Your task to perform on an android device: delete the emails in spam in the gmail app Image 0: 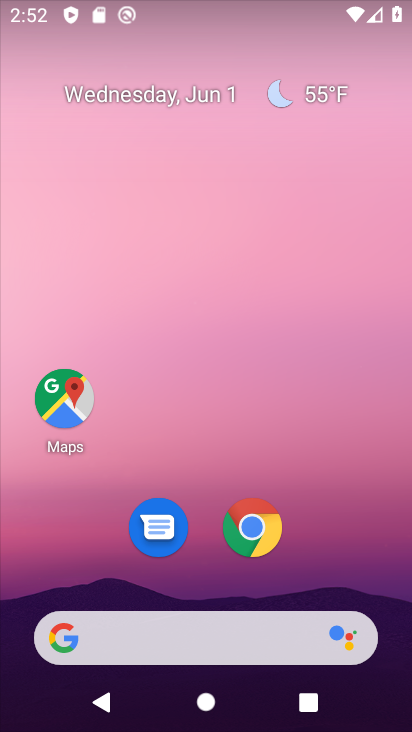
Step 0: drag from (366, 519) to (379, 2)
Your task to perform on an android device: delete the emails in spam in the gmail app Image 1: 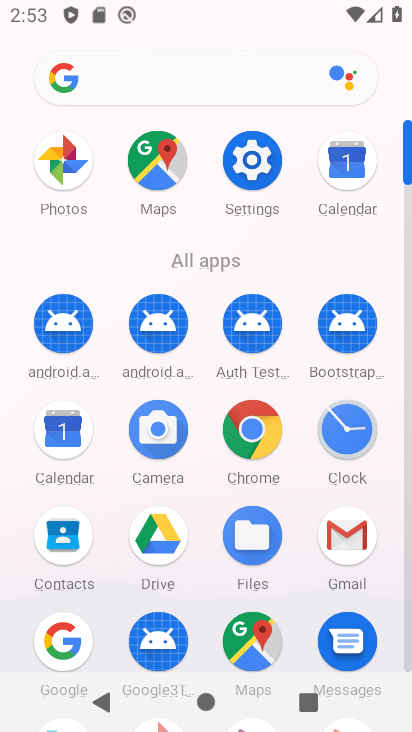
Step 1: click (340, 554)
Your task to perform on an android device: delete the emails in spam in the gmail app Image 2: 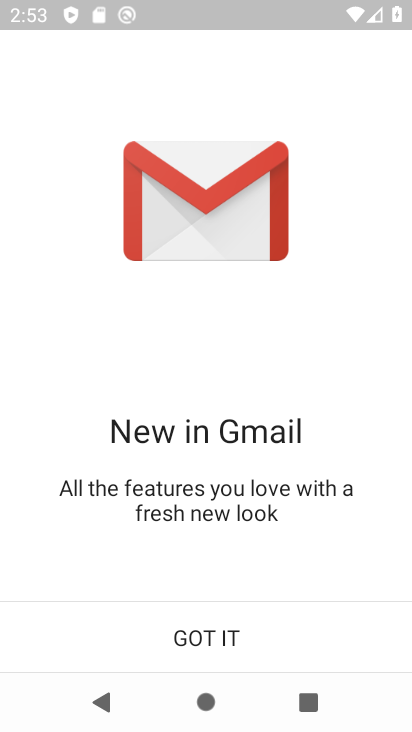
Step 2: click (285, 637)
Your task to perform on an android device: delete the emails in spam in the gmail app Image 3: 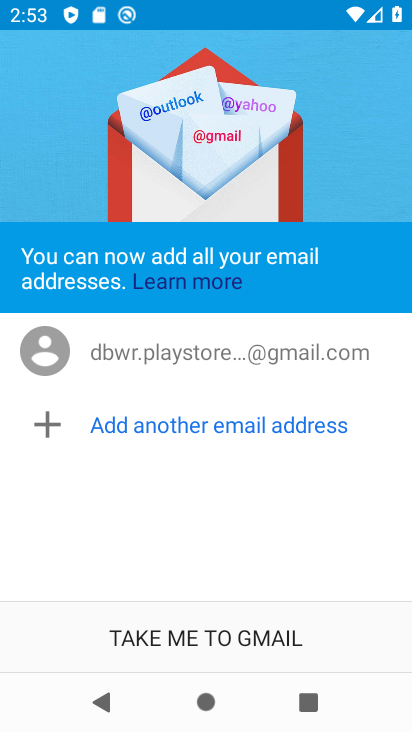
Step 3: click (285, 637)
Your task to perform on an android device: delete the emails in spam in the gmail app Image 4: 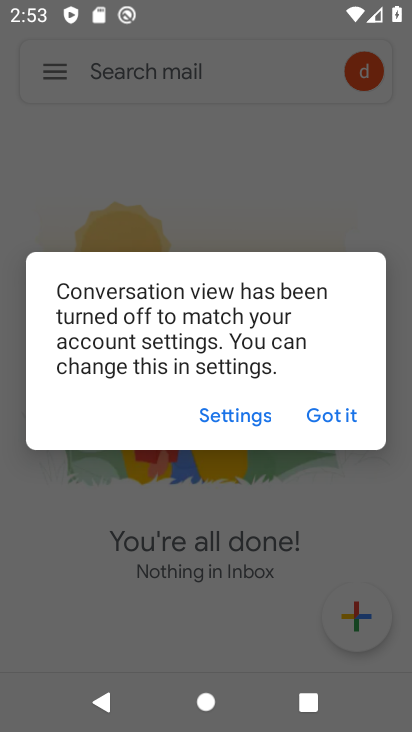
Step 4: click (315, 424)
Your task to perform on an android device: delete the emails in spam in the gmail app Image 5: 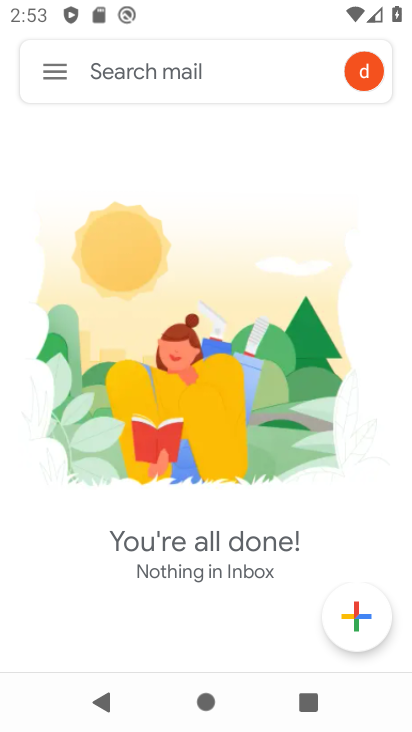
Step 5: task complete